Your task to perform on an android device: turn on location history Image 0: 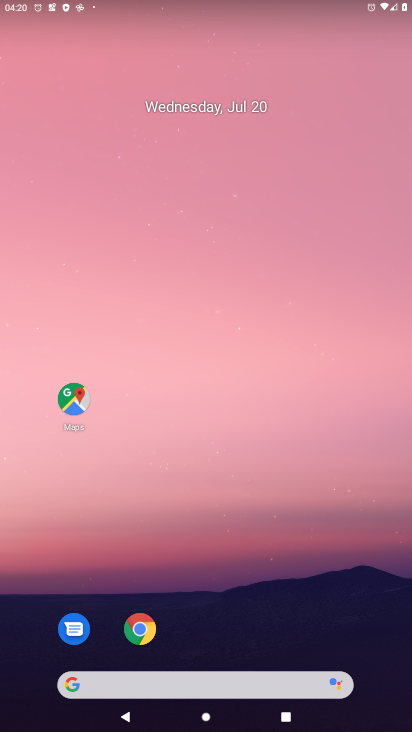
Step 0: click (71, 396)
Your task to perform on an android device: turn on location history Image 1: 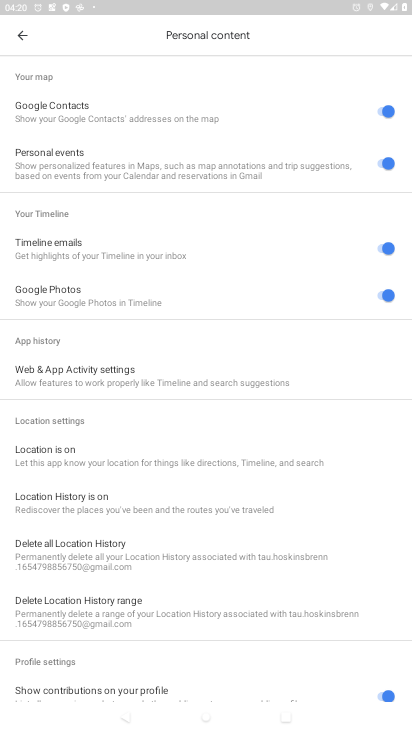
Step 1: task complete